Your task to perform on an android device: Open battery settings Image 0: 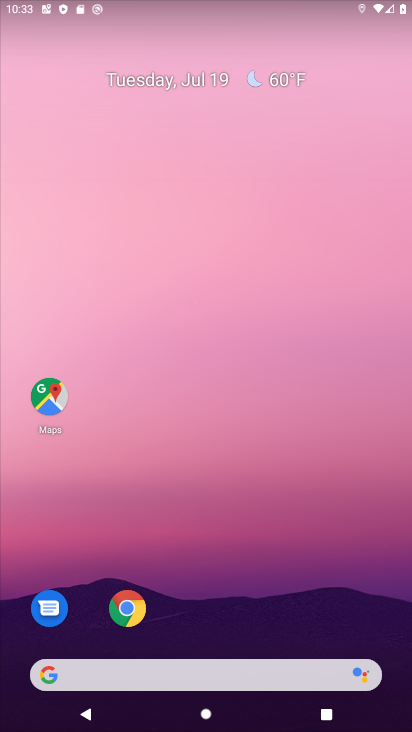
Step 0: drag from (190, 652) to (158, 125)
Your task to perform on an android device: Open battery settings Image 1: 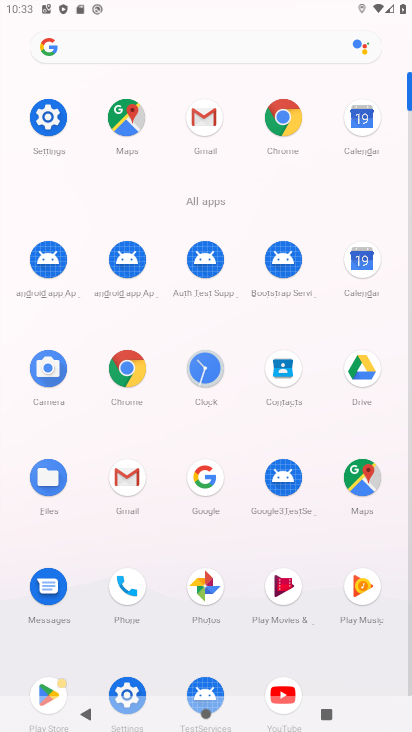
Step 1: click (24, 109)
Your task to perform on an android device: Open battery settings Image 2: 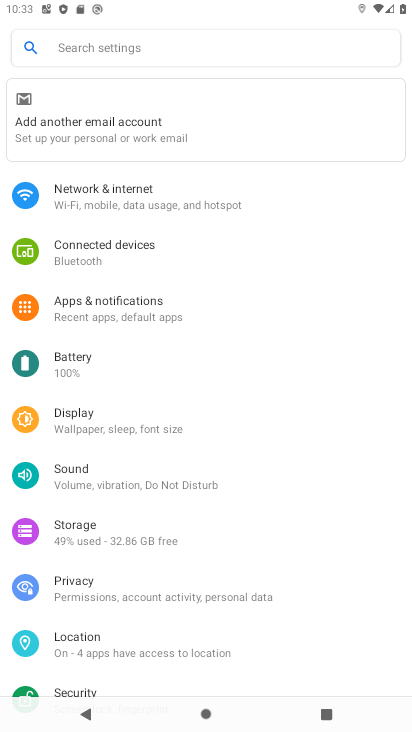
Step 2: click (46, 384)
Your task to perform on an android device: Open battery settings Image 3: 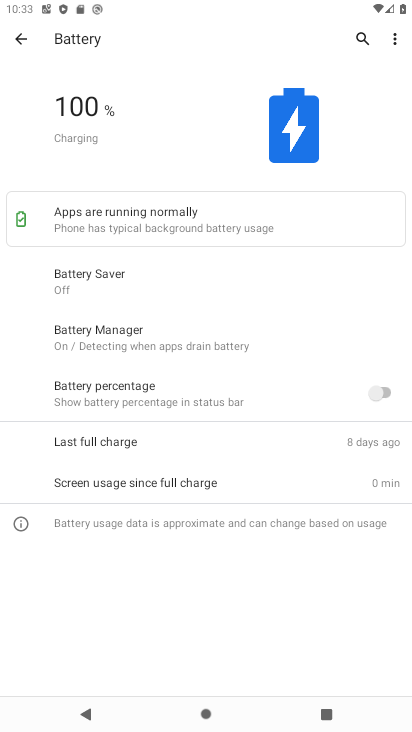
Step 3: task complete